Your task to perform on an android device: Go to eBay Image 0: 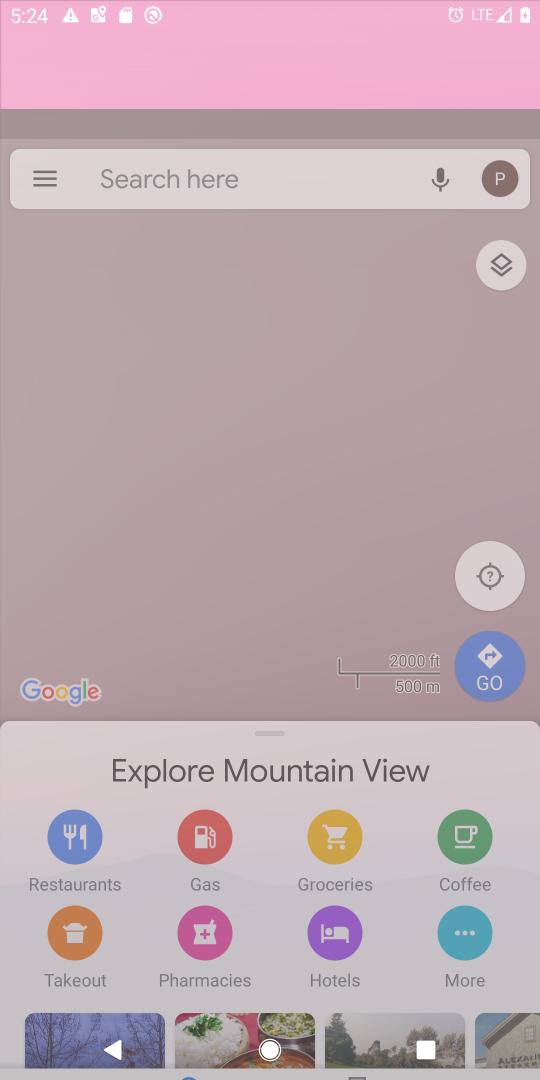
Step 0: press back button
Your task to perform on an android device: Go to eBay Image 1: 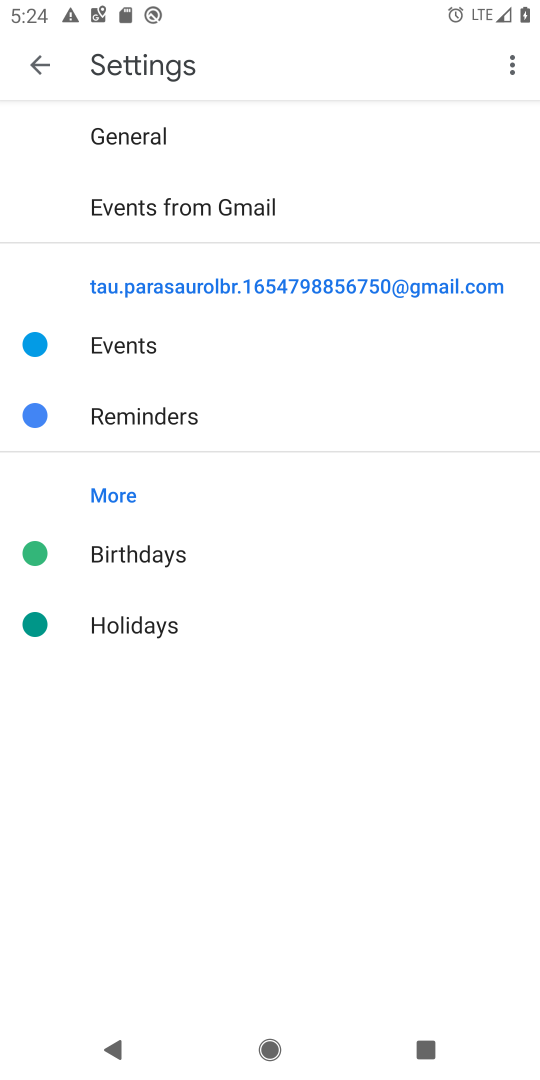
Step 1: press back button
Your task to perform on an android device: Go to eBay Image 2: 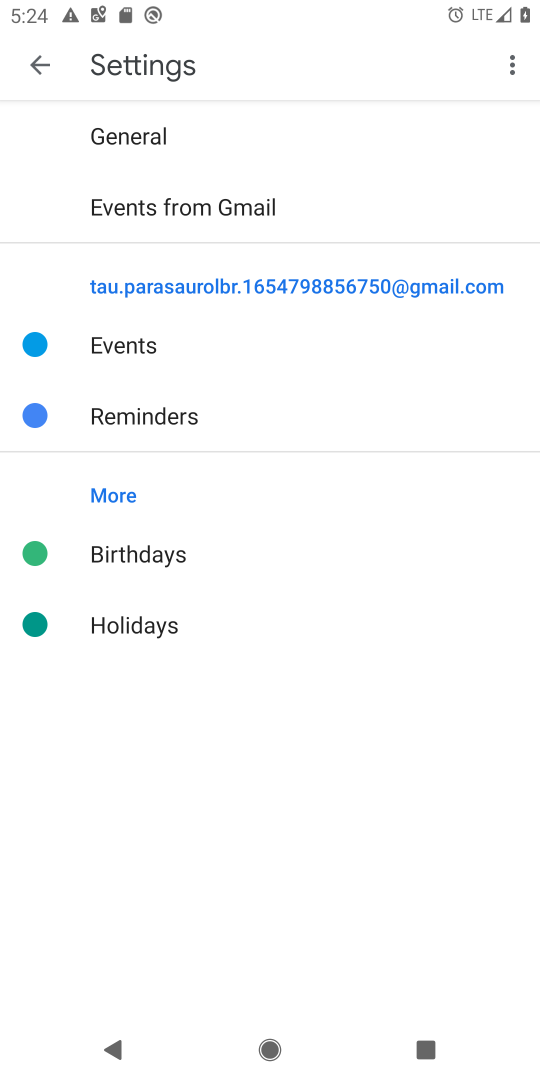
Step 2: press back button
Your task to perform on an android device: Go to eBay Image 3: 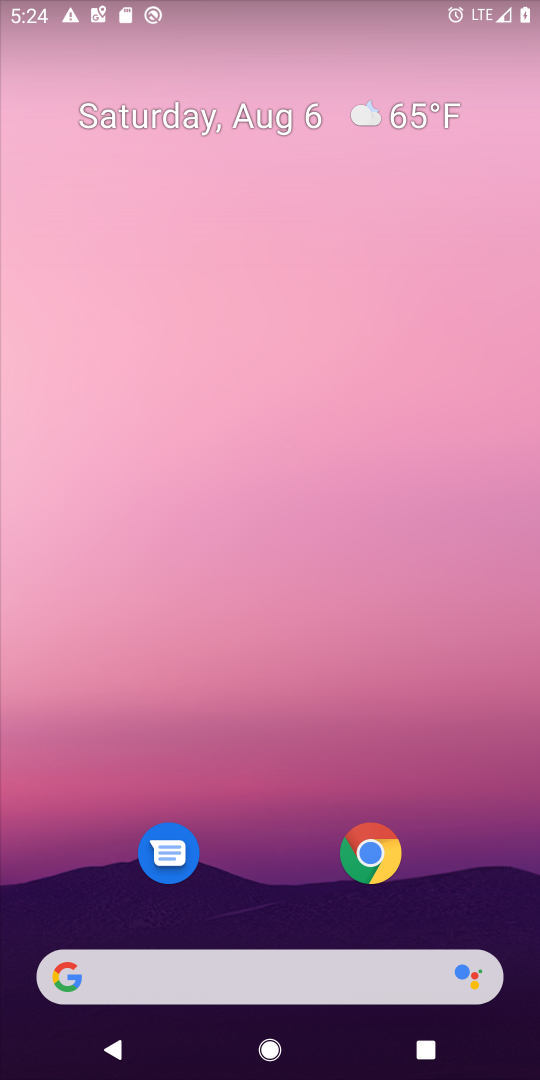
Step 3: click (356, 865)
Your task to perform on an android device: Go to eBay Image 4: 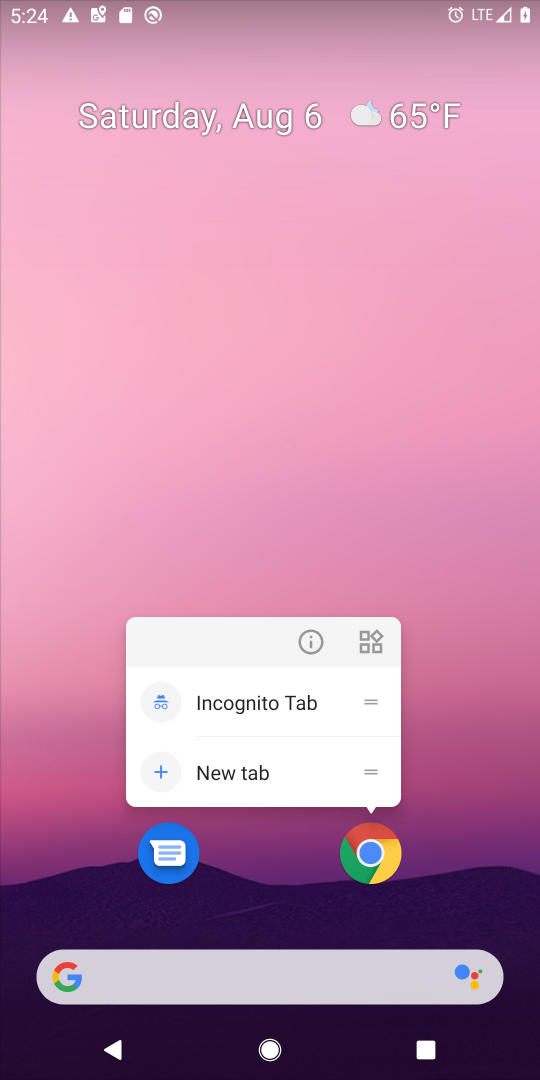
Step 4: click (380, 854)
Your task to perform on an android device: Go to eBay Image 5: 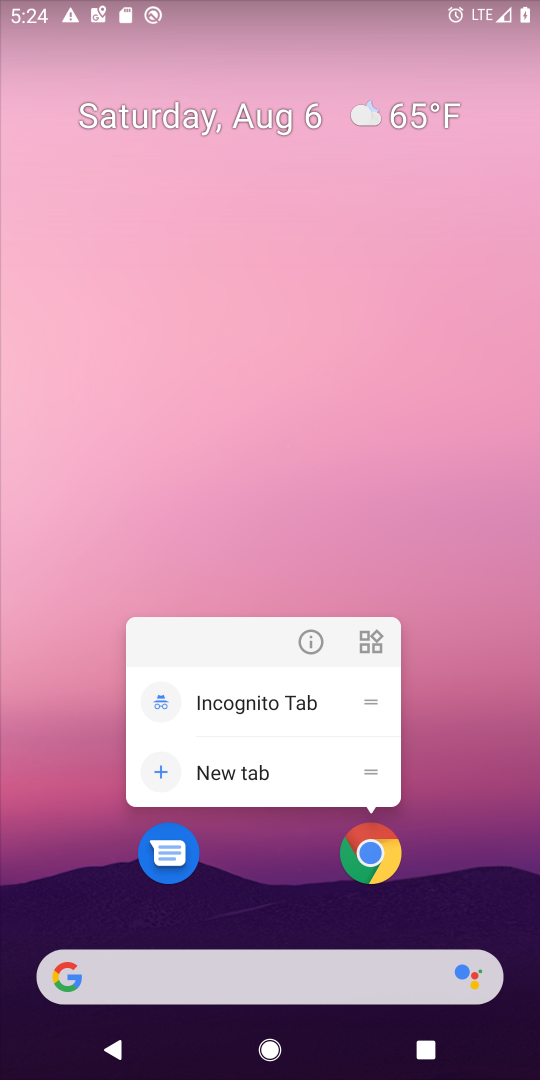
Step 5: click (373, 851)
Your task to perform on an android device: Go to eBay Image 6: 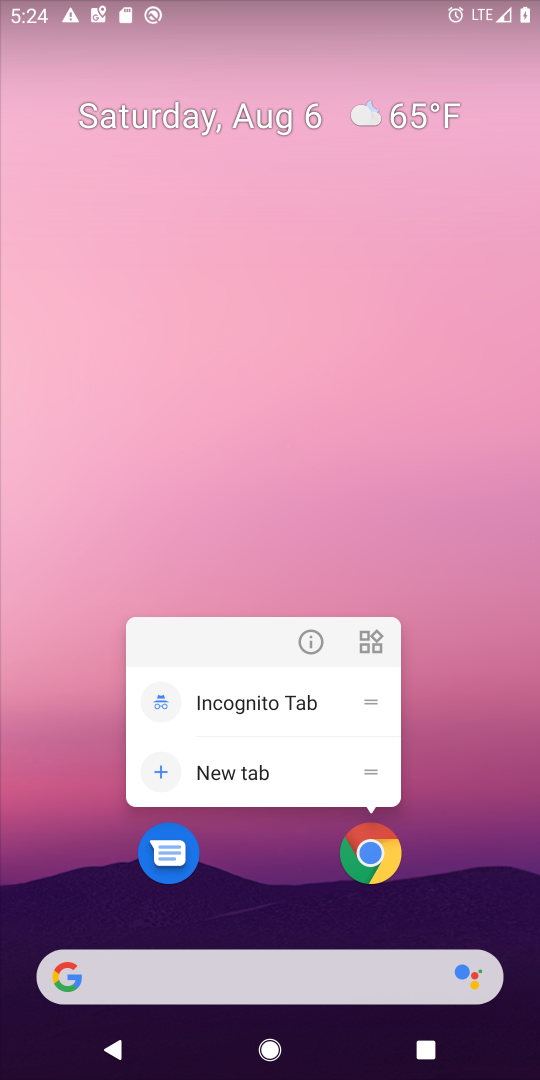
Step 6: click (371, 851)
Your task to perform on an android device: Go to eBay Image 7: 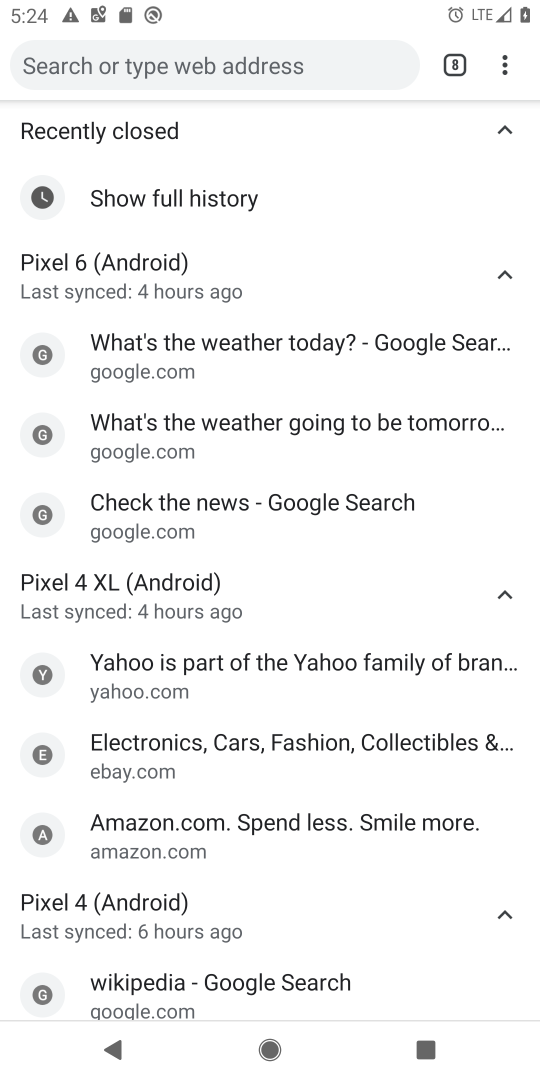
Step 7: click (468, 66)
Your task to perform on an android device: Go to eBay Image 8: 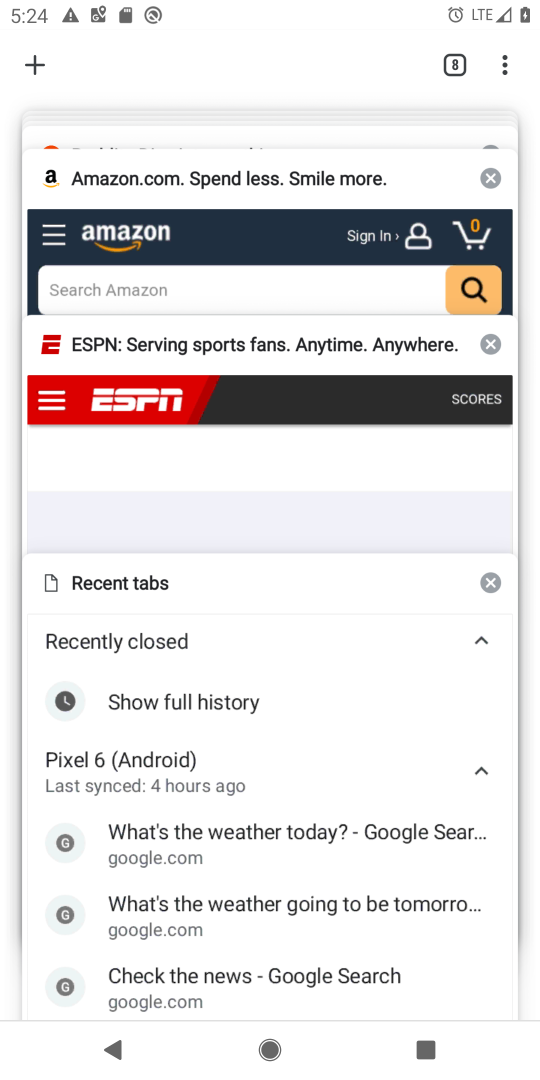
Step 8: click (56, 62)
Your task to perform on an android device: Go to eBay Image 9: 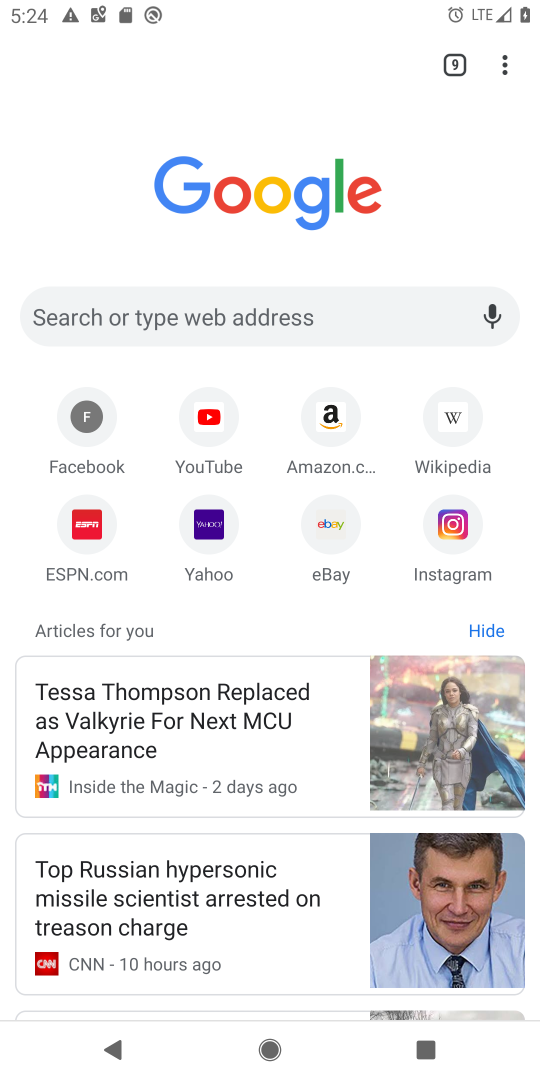
Step 9: click (319, 525)
Your task to perform on an android device: Go to eBay Image 10: 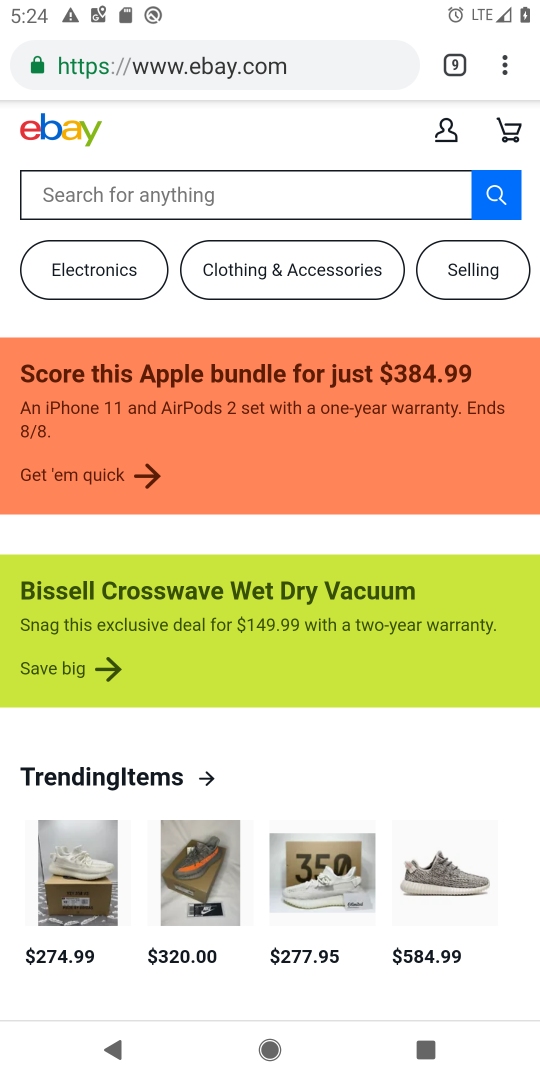
Step 10: task complete